Your task to perform on an android device: show emergency info Image 0: 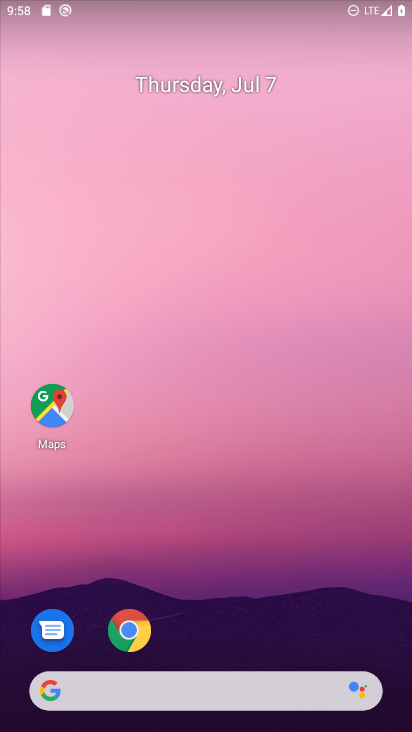
Step 0: drag from (209, 633) to (204, 187)
Your task to perform on an android device: show emergency info Image 1: 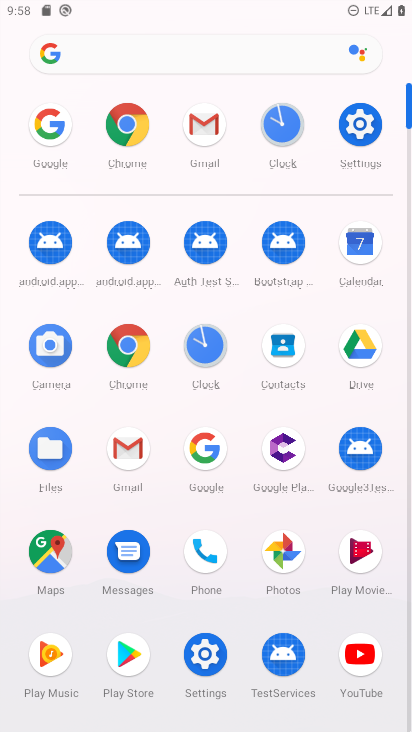
Step 1: click (338, 133)
Your task to perform on an android device: show emergency info Image 2: 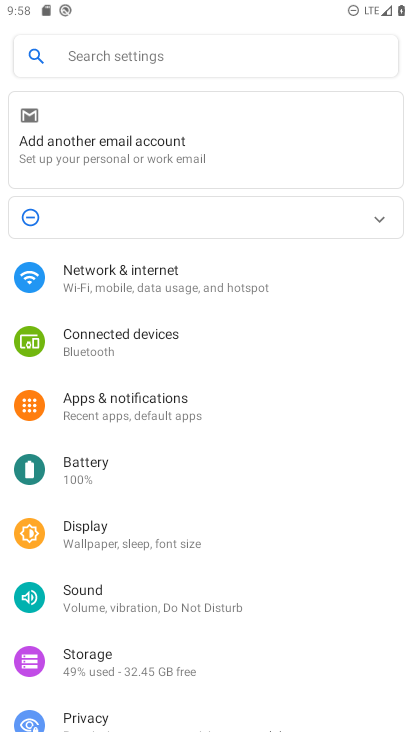
Step 2: drag from (191, 643) to (212, 266)
Your task to perform on an android device: show emergency info Image 3: 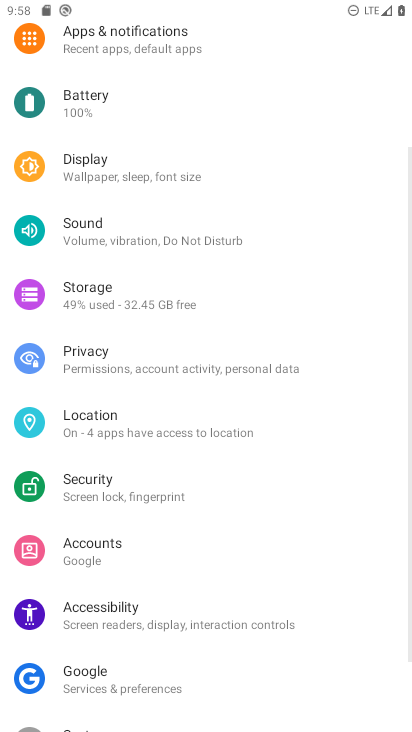
Step 3: drag from (183, 496) to (172, 167)
Your task to perform on an android device: show emergency info Image 4: 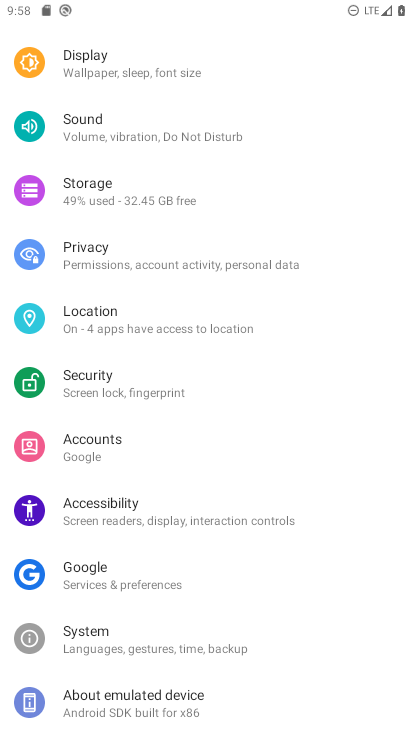
Step 4: drag from (170, 561) to (173, 221)
Your task to perform on an android device: show emergency info Image 5: 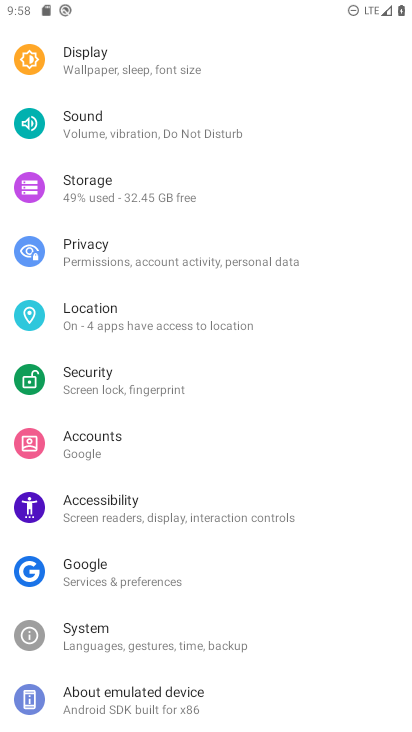
Step 5: drag from (187, 676) to (179, 335)
Your task to perform on an android device: show emergency info Image 6: 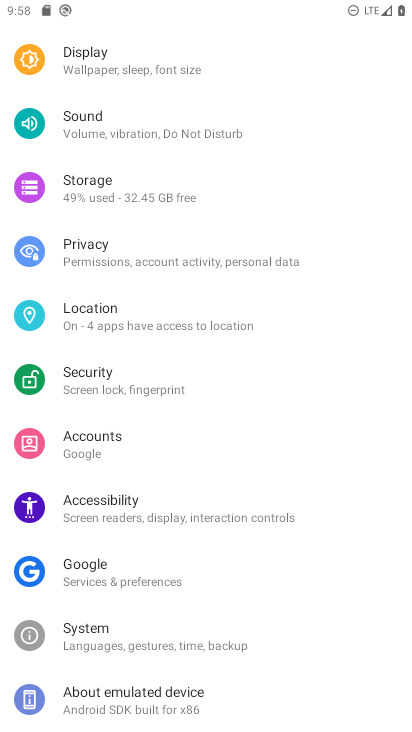
Step 6: click (160, 696)
Your task to perform on an android device: show emergency info Image 7: 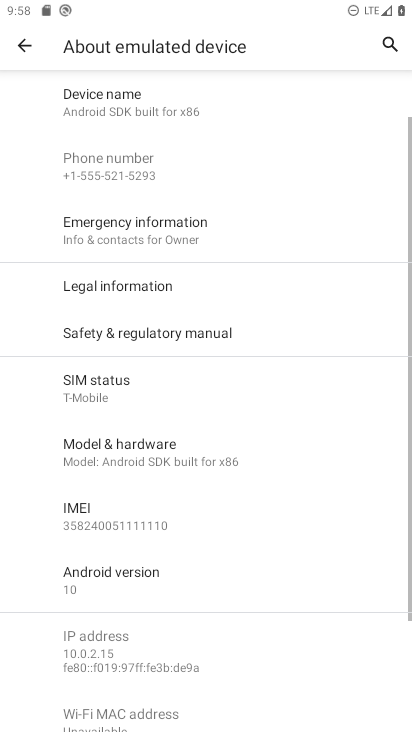
Step 7: click (149, 254)
Your task to perform on an android device: show emergency info Image 8: 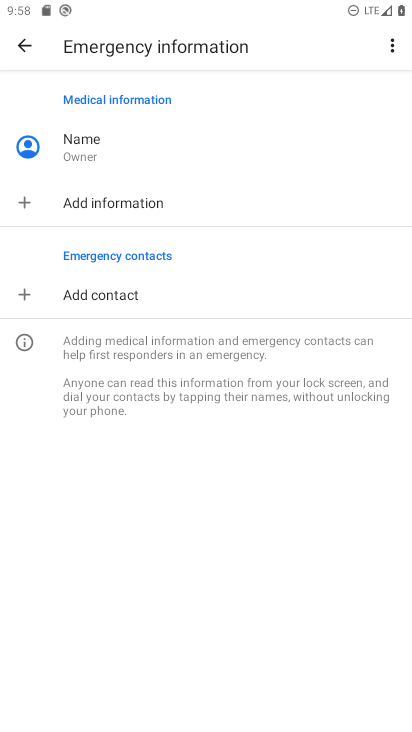
Step 8: task complete